Your task to perform on an android device: empty trash in google photos Image 0: 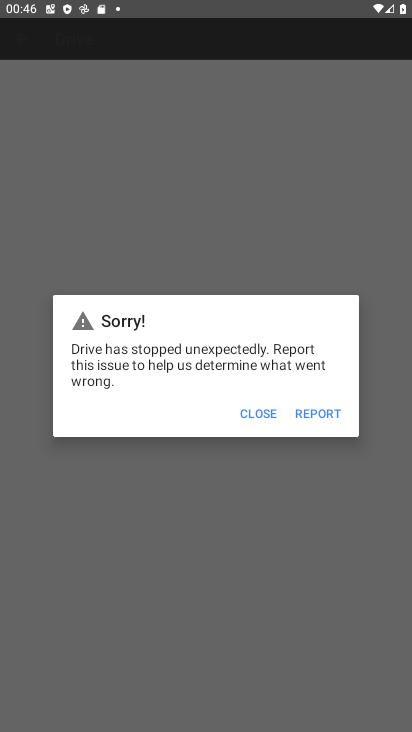
Step 0: press home button
Your task to perform on an android device: empty trash in google photos Image 1: 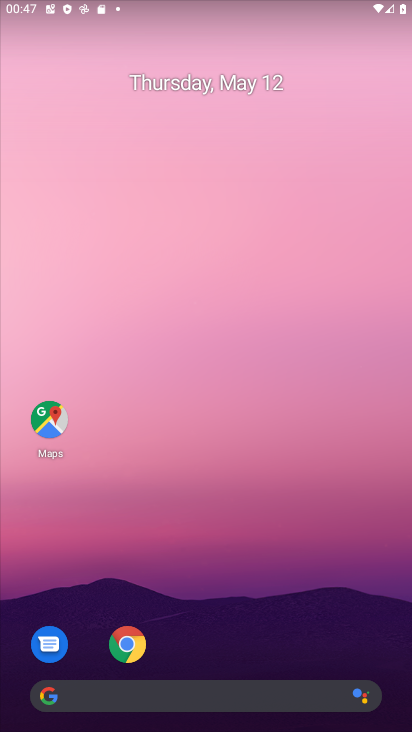
Step 1: drag from (247, 662) to (258, 190)
Your task to perform on an android device: empty trash in google photos Image 2: 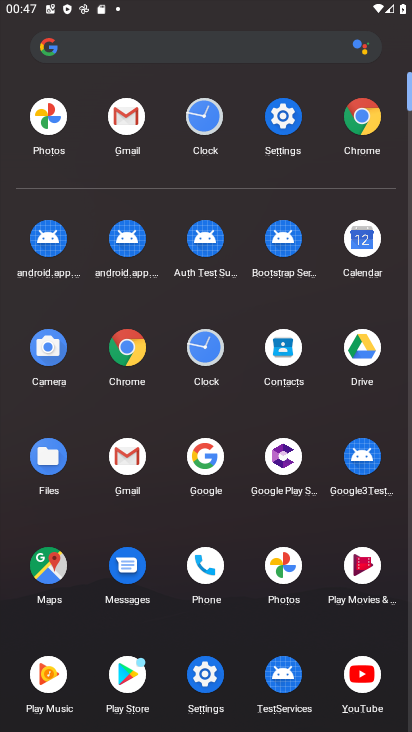
Step 2: click (285, 562)
Your task to perform on an android device: empty trash in google photos Image 3: 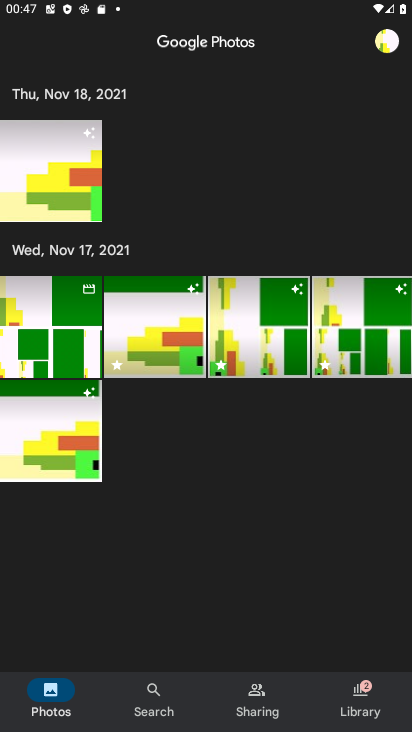
Step 3: click (386, 42)
Your task to perform on an android device: empty trash in google photos Image 4: 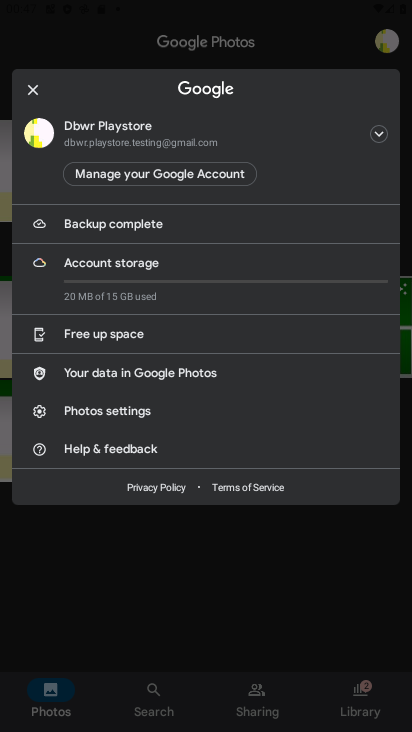
Step 4: click (236, 553)
Your task to perform on an android device: empty trash in google photos Image 5: 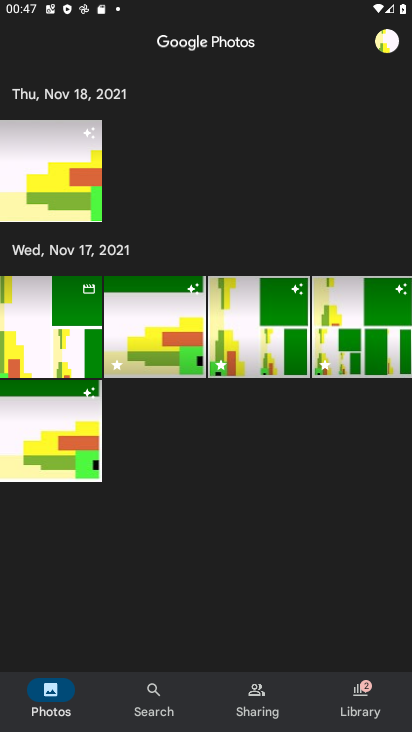
Step 5: click (372, 691)
Your task to perform on an android device: empty trash in google photos Image 6: 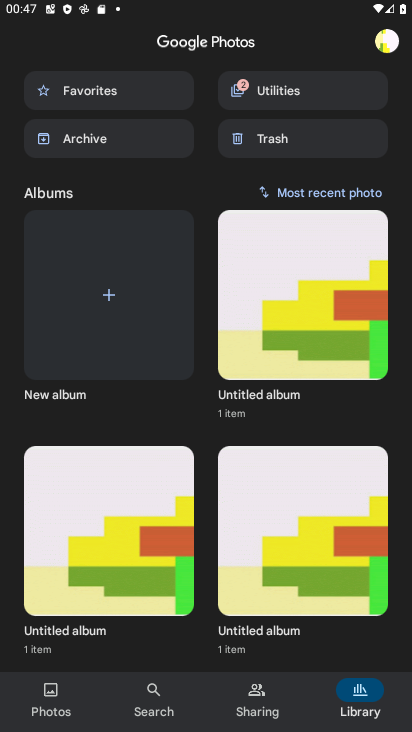
Step 6: click (259, 143)
Your task to perform on an android device: empty trash in google photos Image 7: 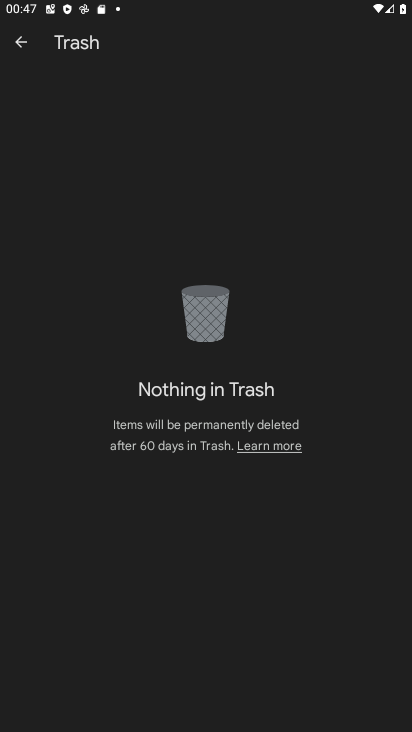
Step 7: task complete